Your task to perform on an android device: What's the weather going to be tomorrow? Image 0: 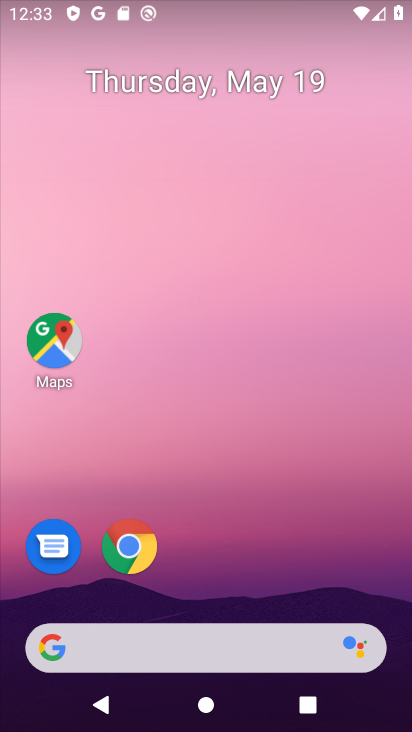
Step 0: drag from (228, 518) to (258, 62)
Your task to perform on an android device: What's the weather going to be tomorrow? Image 1: 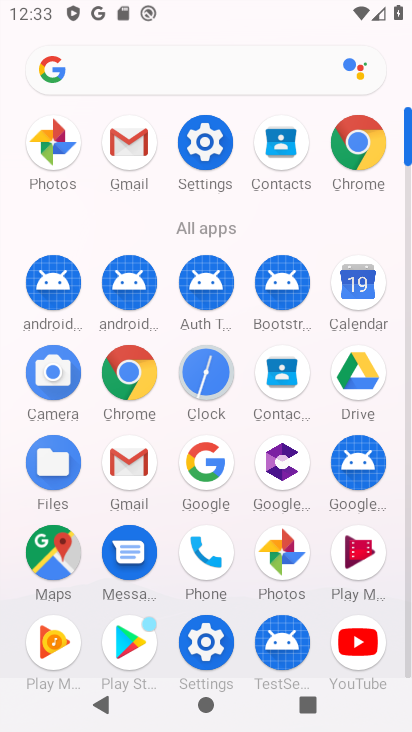
Step 1: click (132, 65)
Your task to perform on an android device: What's the weather going to be tomorrow? Image 2: 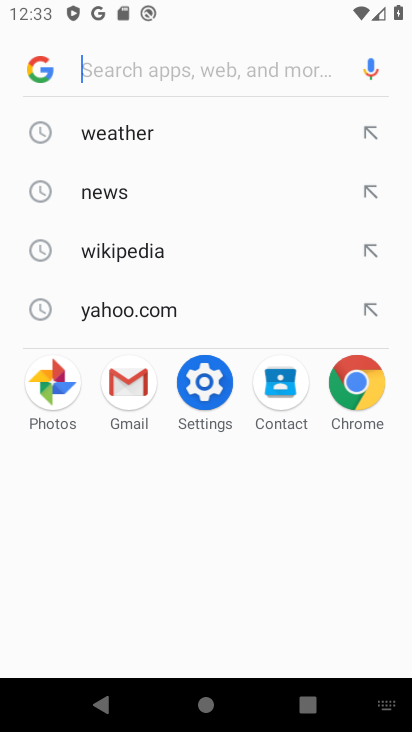
Step 2: type "what's the weather going to be tomorrow"
Your task to perform on an android device: What's the weather going to be tomorrow? Image 3: 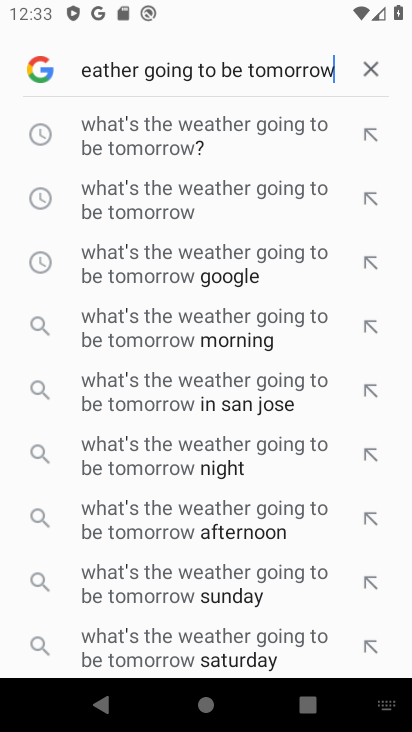
Step 3: click (176, 150)
Your task to perform on an android device: What's the weather going to be tomorrow? Image 4: 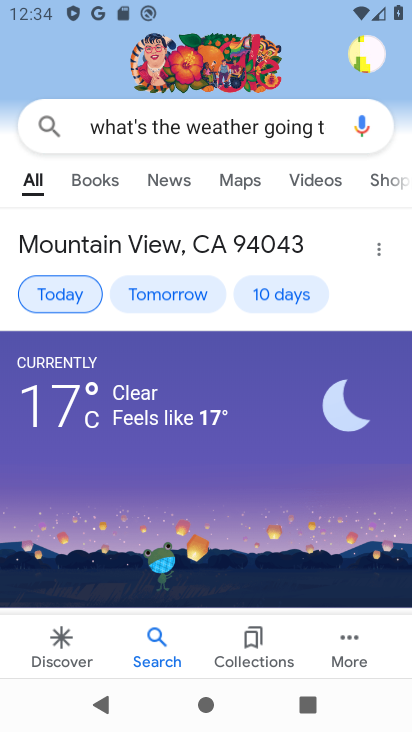
Step 4: task complete